Your task to perform on an android device: turn notification dots on Image 0: 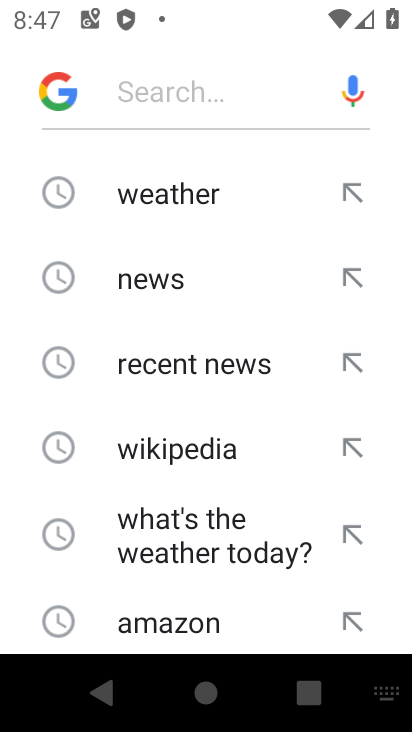
Step 0: press home button
Your task to perform on an android device: turn notification dots on Image 1: 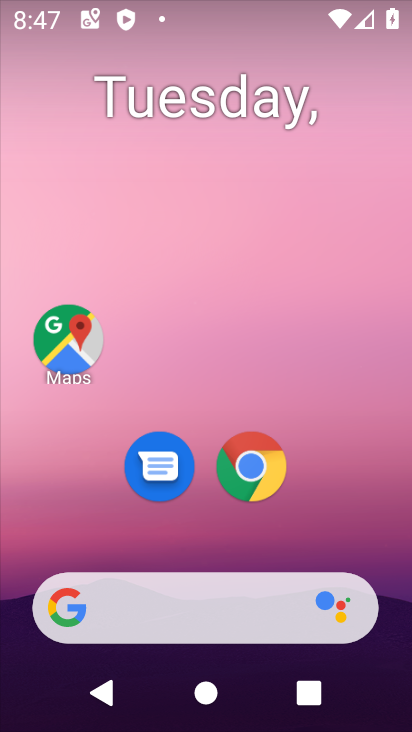
Step 1: drag from (373, 514) to (364, 35)
Your task to perform on an android device: turn notification dots on Image 2: 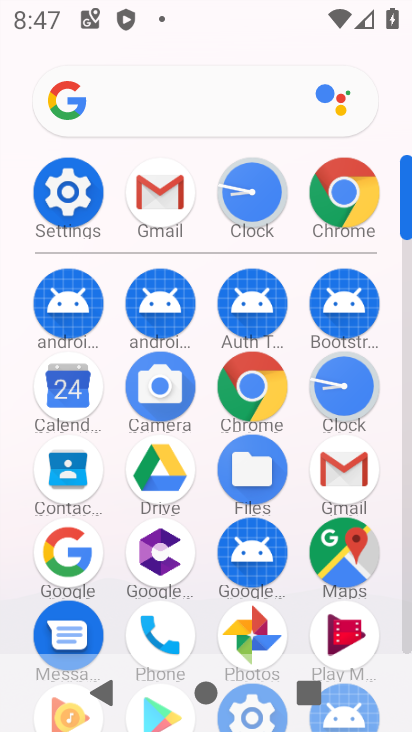
Step 2: click (72, 201)
Your task to perform on an android device: turn notification dots on Image 3: 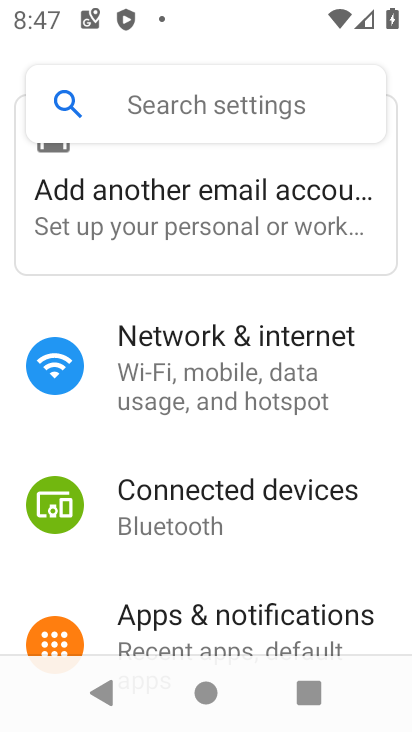
Step 3: drag from (206, 609) to (194, 276)
Your task to perform on an android device: turn notification dots on Image 4: 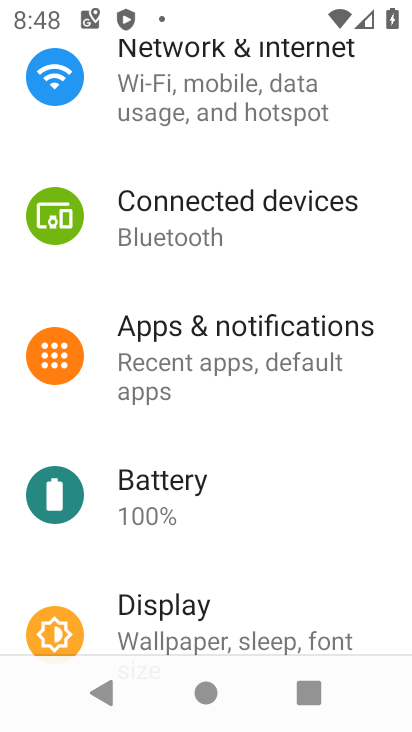
Step 4: drag from (190, 525) to (201, 214)
Your task to perform on an android device: turn notification dots on Image 5: 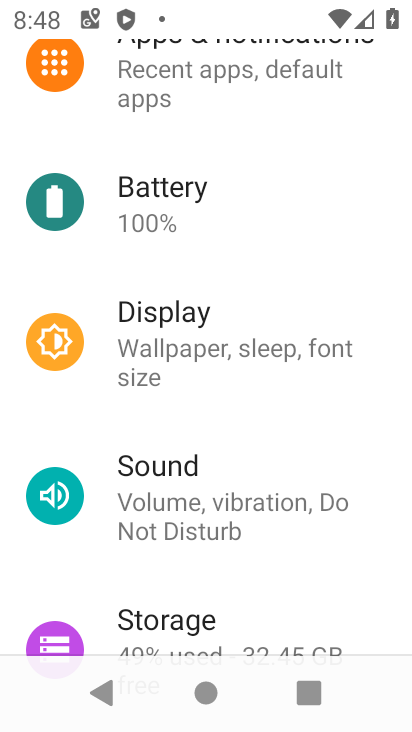
Step 5: drag from (229, 217) to (252, 730)
Your task to perform on an android device: turn notification dots on Image 6: 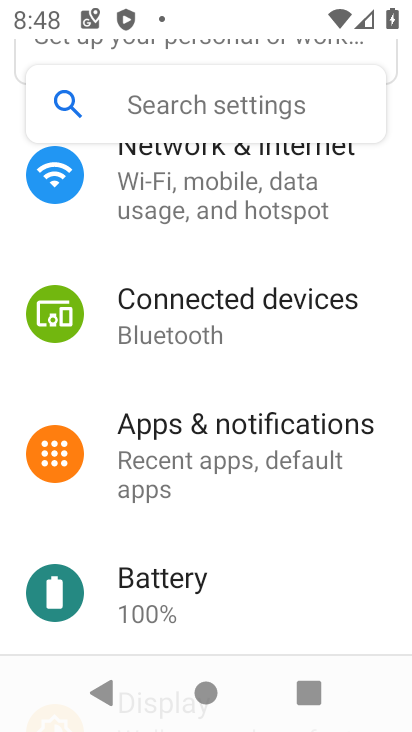
Step 6: click (232, 224)
Your task to perform on an android device: turn notification dots on Image 7: 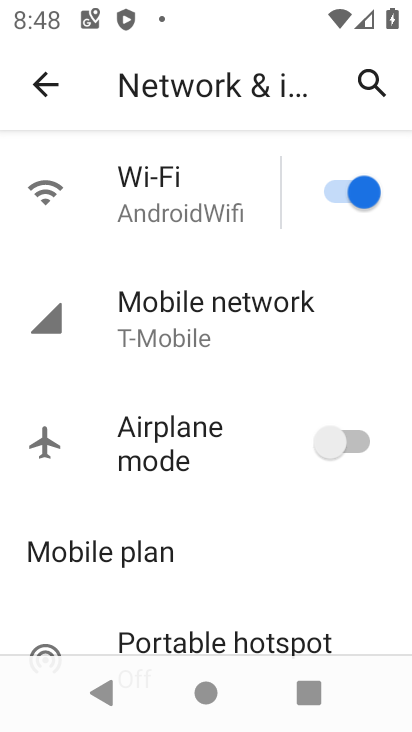
Step 7: task complete